Your task to perform on an android device: turn off data saver in the chrome app Image 0: 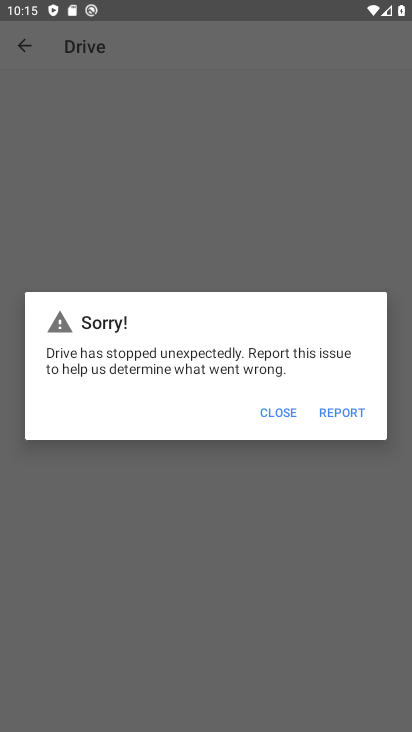
Step 0: press home button
Your task to perform on an android device: turn off data saver in the chrome app Image 1: 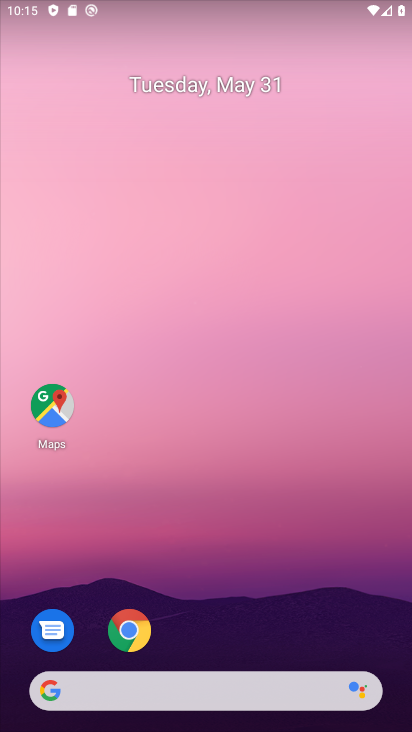
Step 1: click (132, 628)
Your task to perform on an android device: turn off data saver in the chrome app Image 2: 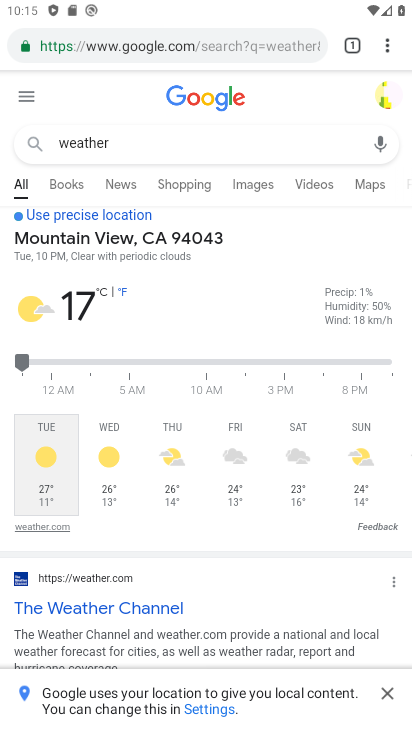
Step 2: click (390, 53)
Your task to perform on an android device: turn off data saver in the chrome app Image 3: 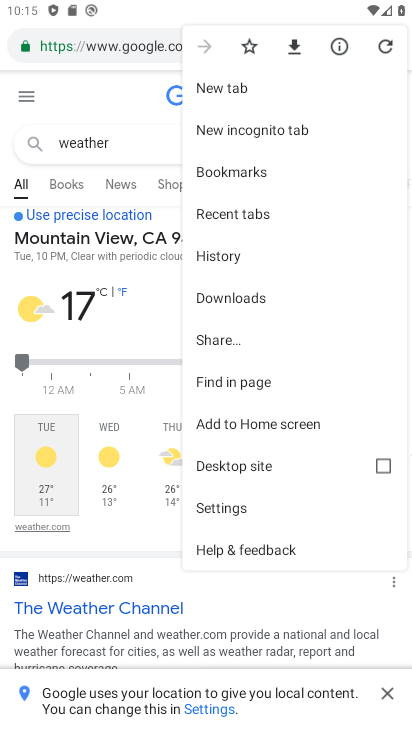
Step 3: click (236, 504)
Your task to perform on an android device: turn off data saver in the chrome app Image 4: 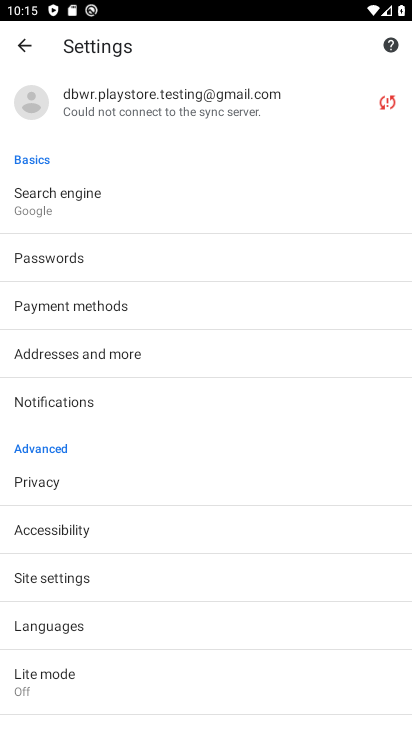
Step 4: drag from (133, 513) to (191, 166)
Your task to perform on an android device: turn off data saver in the chrome app Image 5: 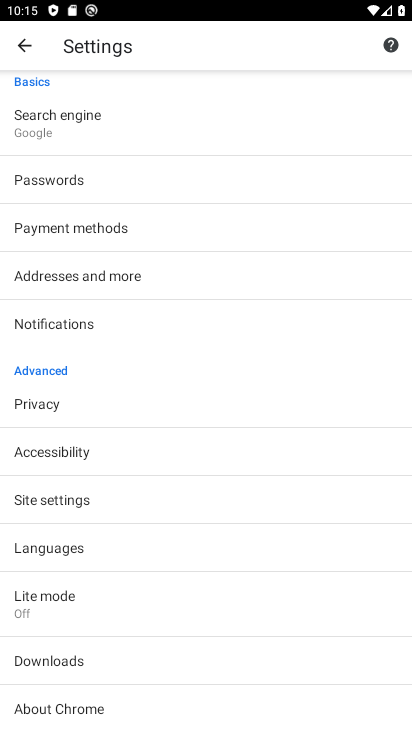
Step 5: click (66, 601)
Your task to perform on an android device: turn off data saver in the chrome app Image 6: 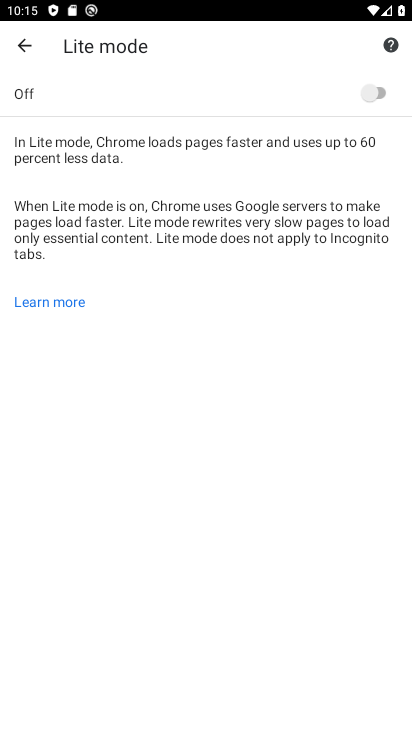
Step 6: task complete